Your task to perform on an android device: Search for 24"x36" picture frame on Home Depot. Image 0: 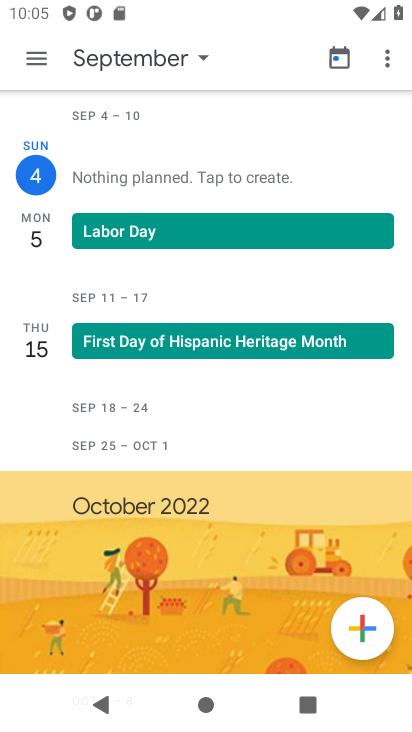
Step 0: press home button
Your task to perform on an android device: Search for 24"x36" picture frame on Home Depot. Image 1: 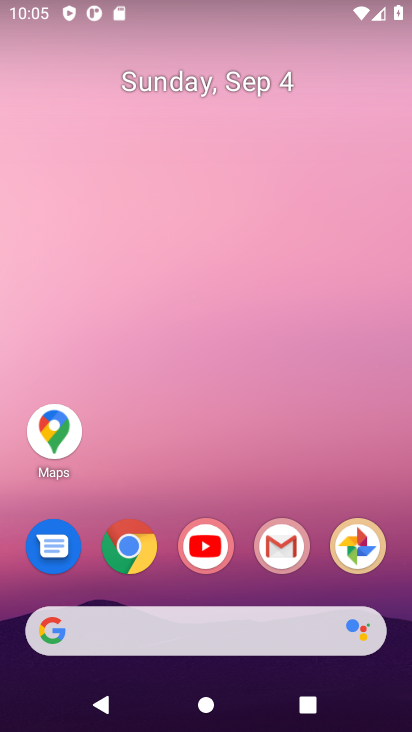
Step 1: click (136, 550)
Your task to perform on an android device: Search for 24"x36" picture frame on Home Depot. Image 2: 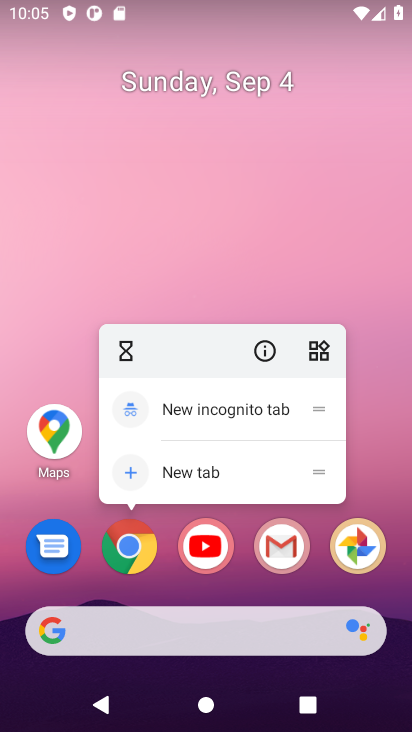
Step 2: click (130, 552)
Your task to perform on an android device: Search for 24"x36" picture frame on Home Depot. Image 3: 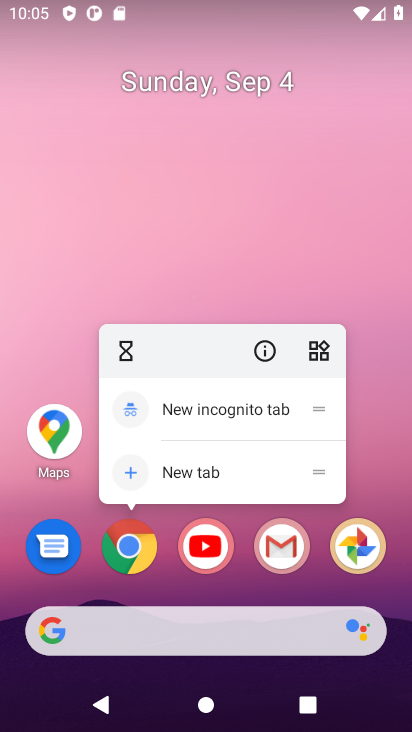
Step 3: click (127, 556)
Your task to perform on an android device: Search for 24"x36" picture frame on Home Depot. Image 4: 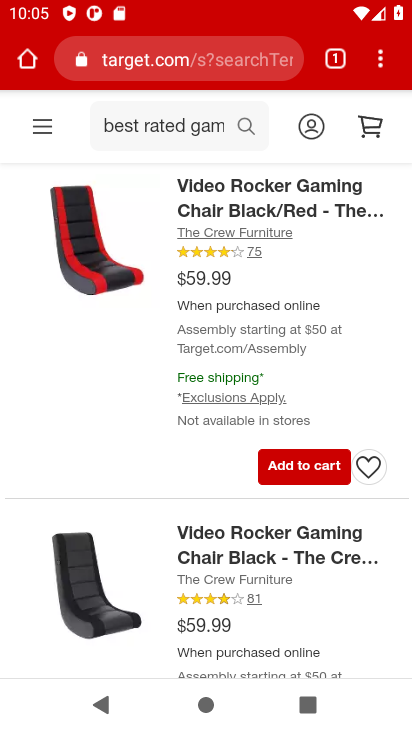
Step 4: click (190, 63)
Your task to perform on an android device: Search for 24"x36" picture frame on Home Depot. Image 5: 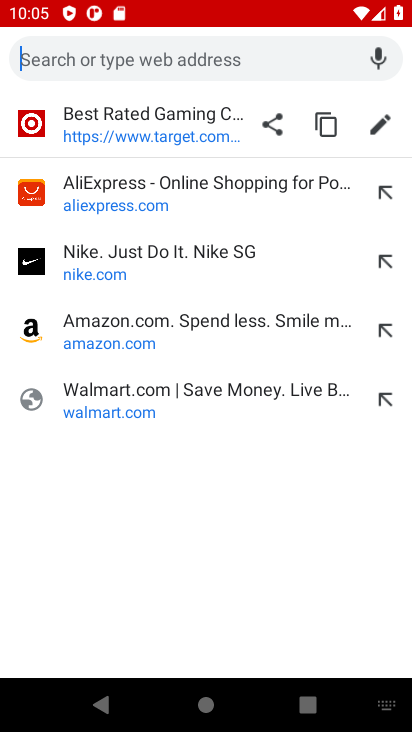
Step 5: type "Home Depot."
Your task to perform on an android device: Search for 24"x36" picture frame on Home Depot. Image 6: 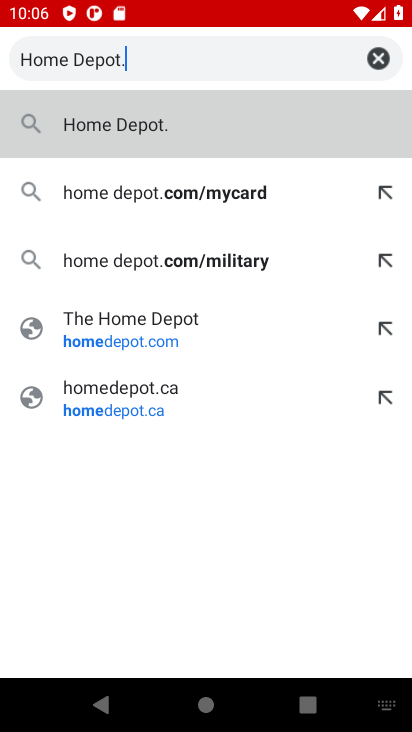
Step 6: click (95, 135)
Your task to perform on an android device: Search for 24"x36" picture frame on Home Depot. Image 7: 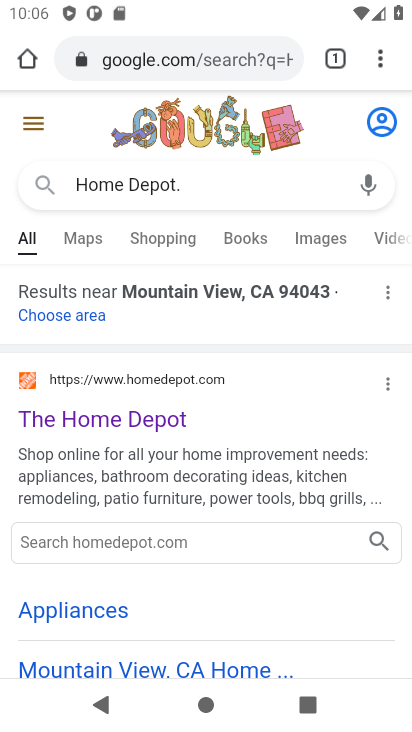
Step 7: click (81, 423)
Your task to perform on an android device: Search for 24"x36" picture frame on Home Depot. Image 8: 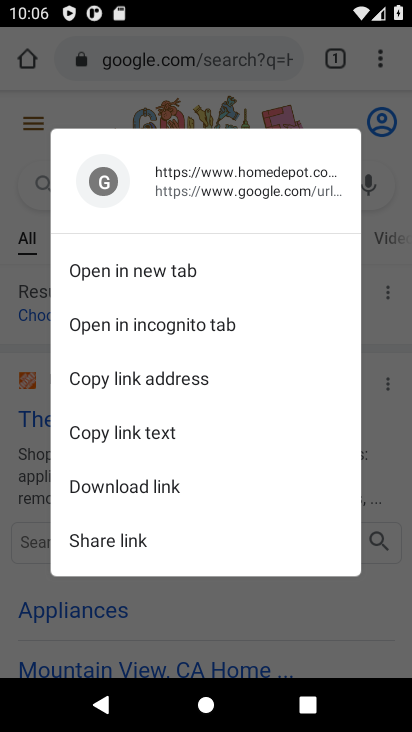
Step 8: click (387, 342)
Your task to perform on an android device: Search for 24"x36" picture frame on Home Depot. Image 9: 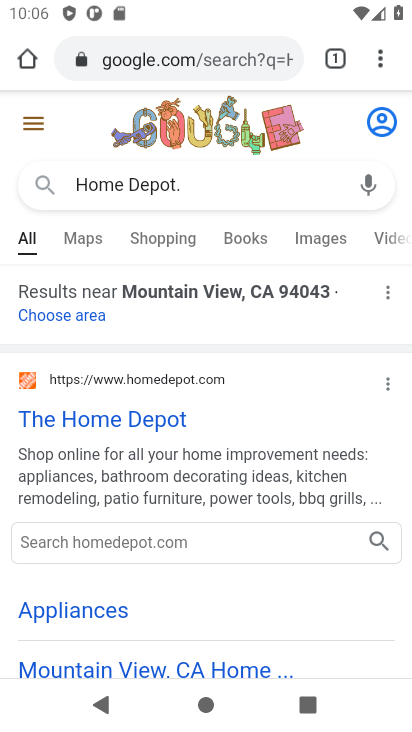
Step 9: click (49, 421)
Your task to perform on an android device: Search for 24"x36" picture frame on Home Depot. Image 10: 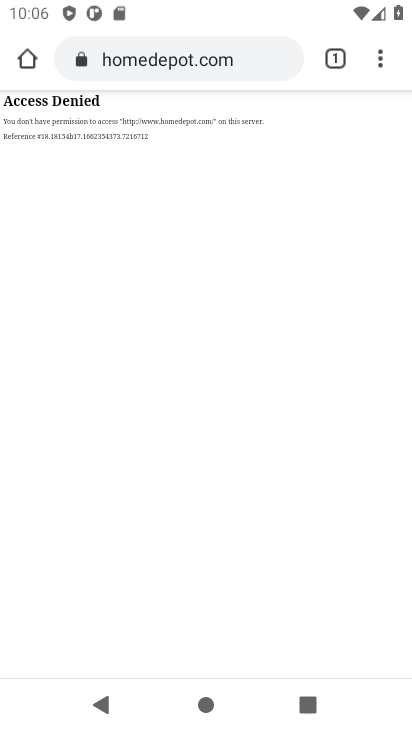
Step 10: task complete